Your task to perform on an android device: Go to sound settings Image 0: 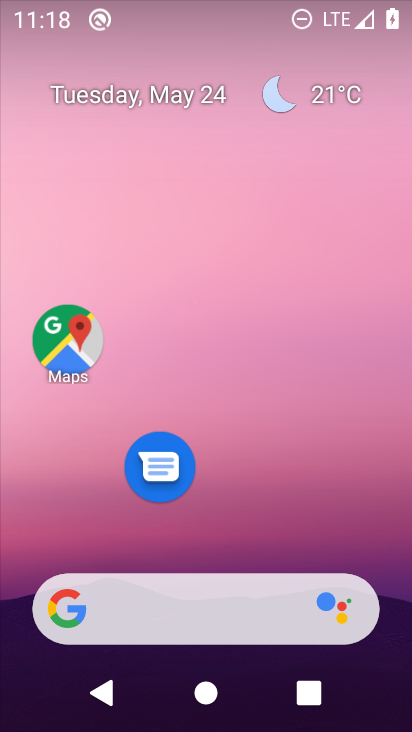
Step 0: click (281, 150)
Your task to perform on an android device: Go to sound settings Image 1: 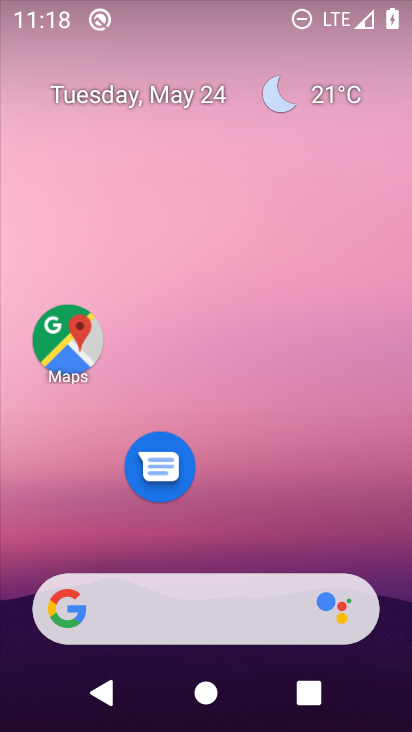
Step 1: drag from (215, 530) to (200, 11)
Your task to perform on an android device: Go to sound settings Image 2: 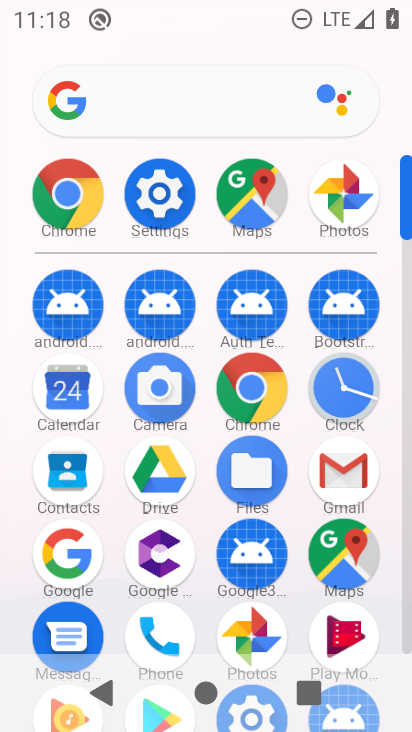
Step 2: click (156, 183)
Your task to perform on an android device: Go to sound settings Image 3: 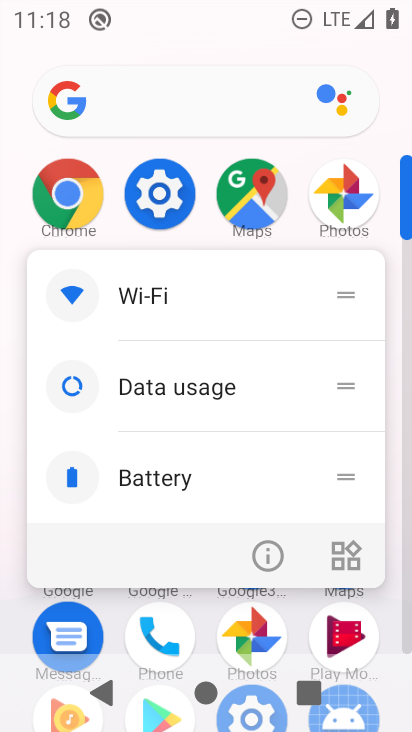
Step 3: click (255, 555)
Your task to perform on an android device: Go to sound settings Image 4: 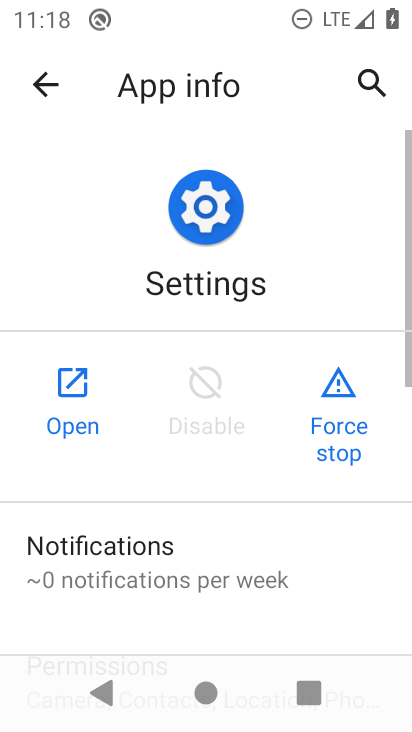
Step 4: click (68, 399)
Your task to perform on an android device: Go to sound settings Image 5: 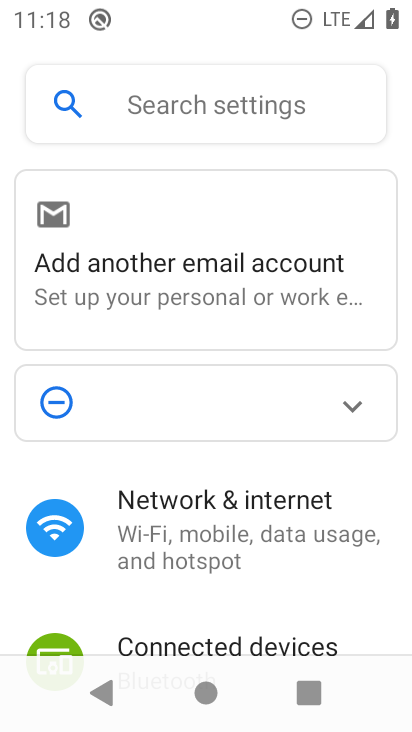
Step 5: drag from (215, 582) to (310, 173)
Your task to perform on an android device: Go to sound settings Image 6: 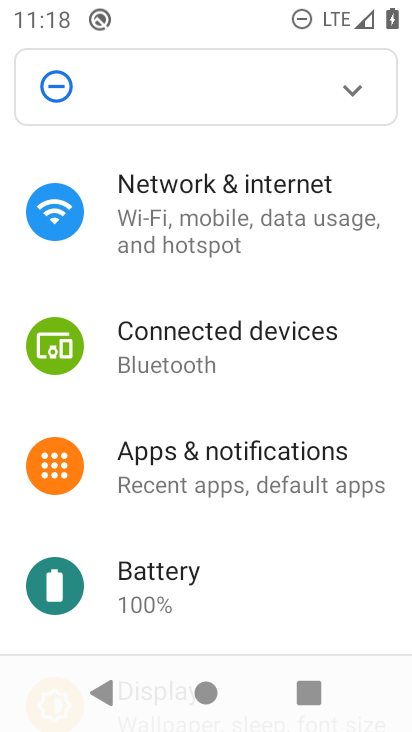
Step 6: drag from (223, 498) to (305, 131)
Your task to perform on an android device: Go to sound settings Image 7: 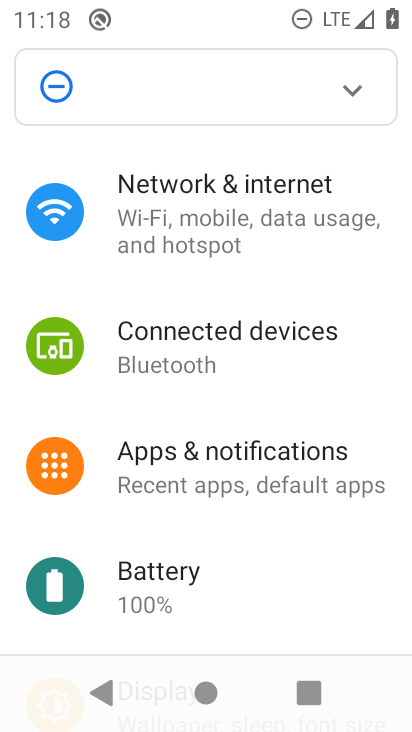
Step 7: drag from (222, 594) to (280, 242)
Your task to perform on an android device: Go to sound settings Image 8: 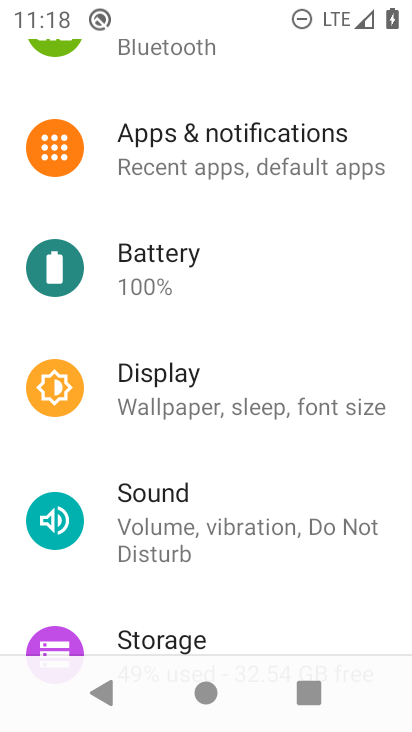
Step 8: click (219, 522)
Your task to perform on an android device: Go to sound settings Image 9: 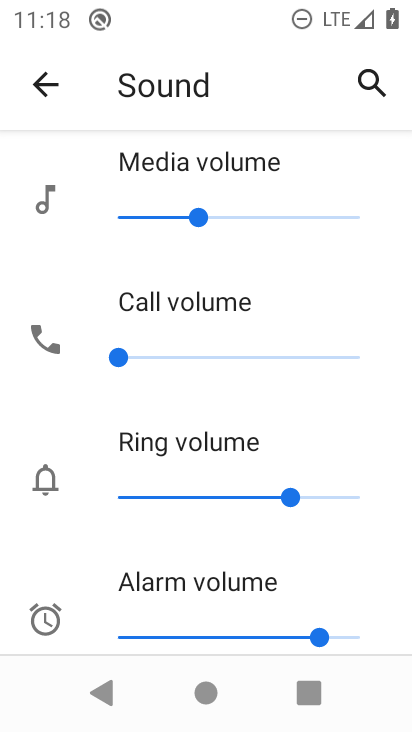
Step 9: task complete